Your task to perform on an android device: Open wifi settings Image 0: 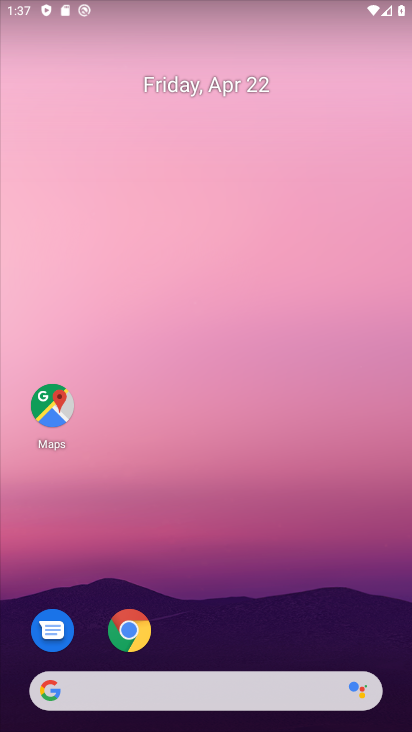
Step 0: drag from (338, 643) to (231, 215)
Your task to perform on an android device: Open wifi settings Image 1: 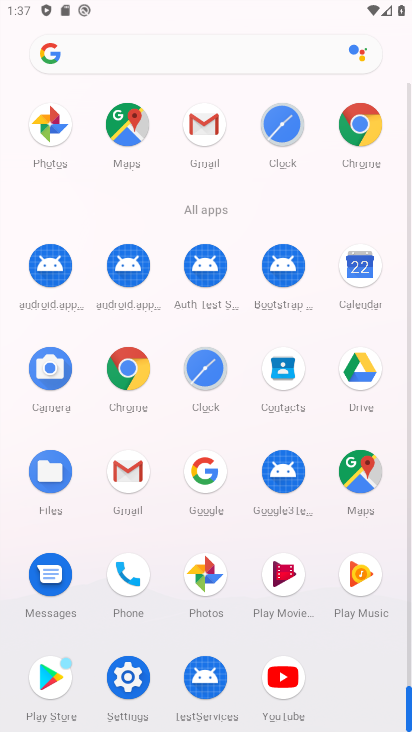
Step 1: click (305, 112)
Your task to perform on an android device: Open wifi settings Image 2: 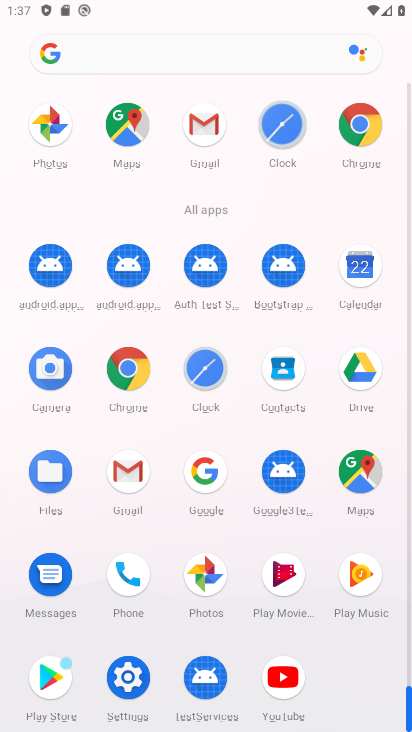
Step 2: click (230, 76)
Your task to perform on an android device: Open wifi settings Image 3: 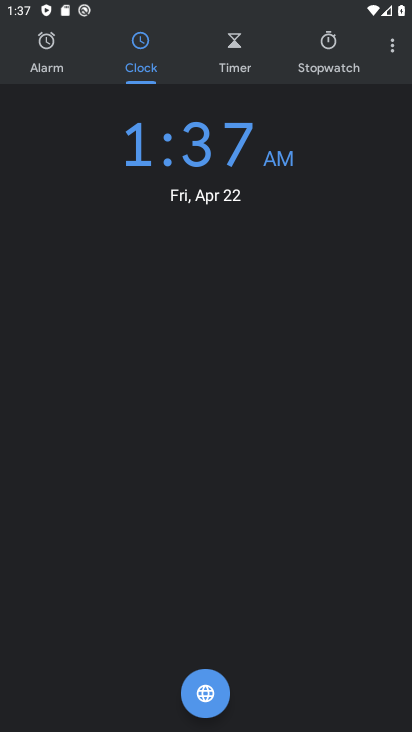
Step 3: press home button
Your task to perform on an android device: Open wifi settings Image 4: 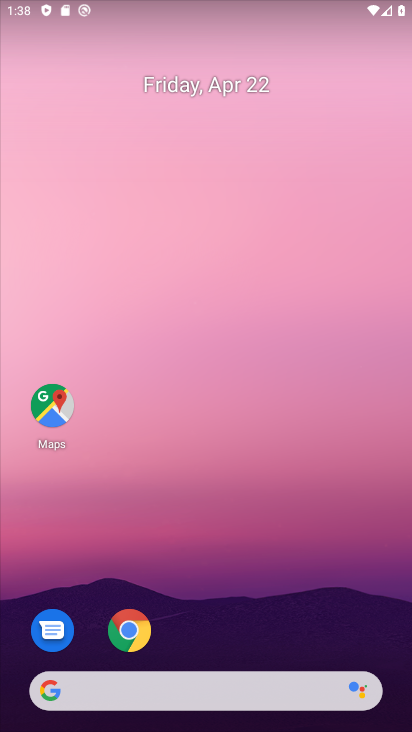
Step 4: drag from (319, 335) to (346, 97)
Your task to perform on an android device: Open wifi settings Image 5: 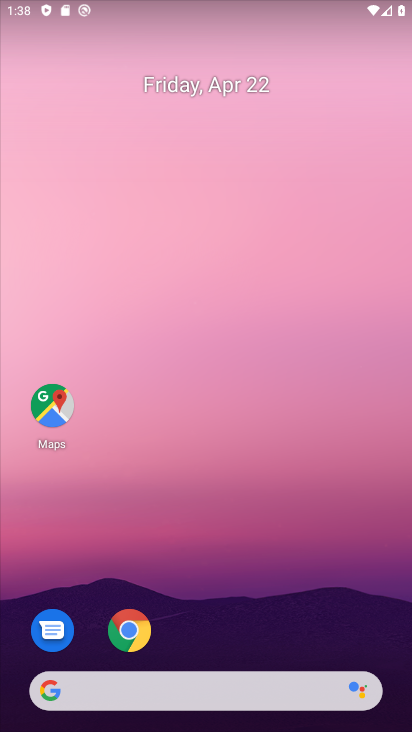
Step 5: drag from (357, 375) to (351, 177)
Your task to perform on an android device: Open wifi settings Image 6: 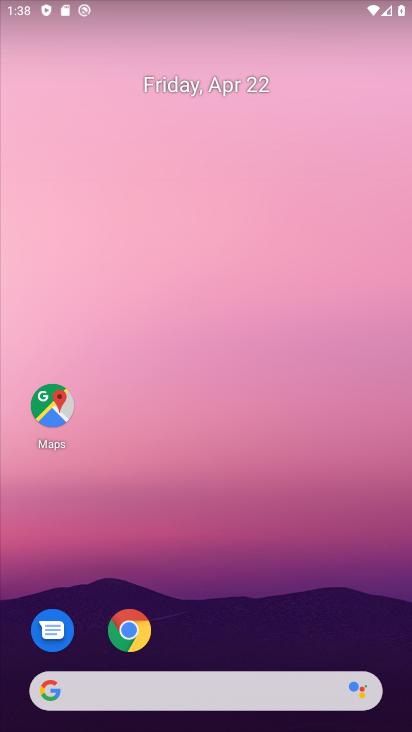
Step 6: click (393, 138)
Your task to perform on an android device: Open wifi settings Image 7: 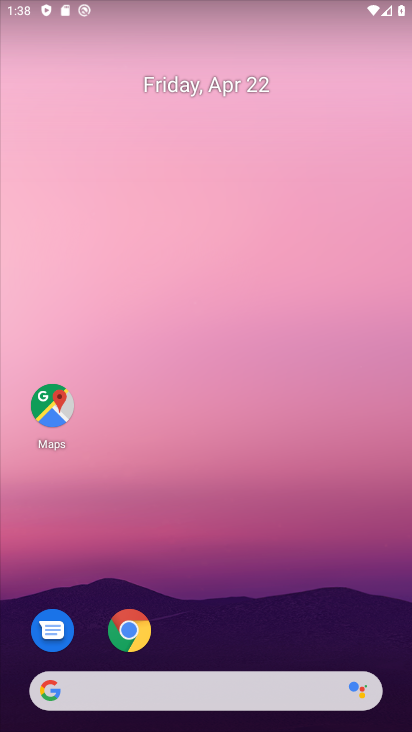
Step 7: drag from (322, 202) to (301, 74)
Your task to perform on an android device: Open wifi settings Image 8: 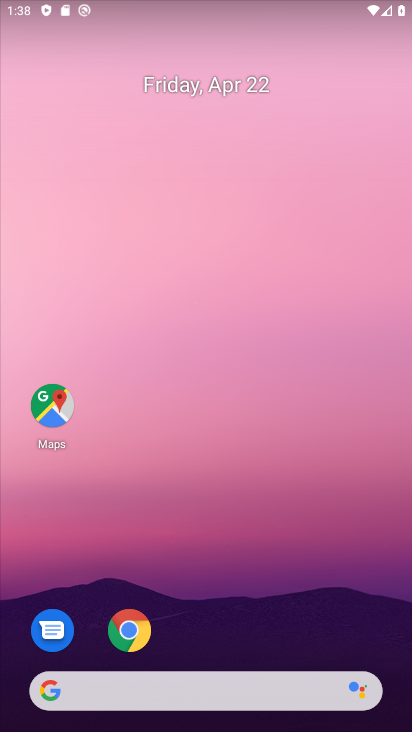
Step 8: drag from (335, 550) to (345, 123)
Your task to perform on an android device: Open wifi settings Image 9: 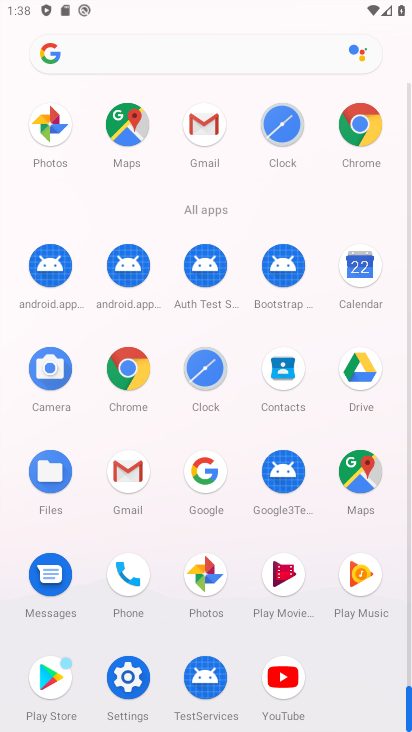
Step 9: click (114, 660)
Your task to perform on an android device: Open wifi settings Image 10: 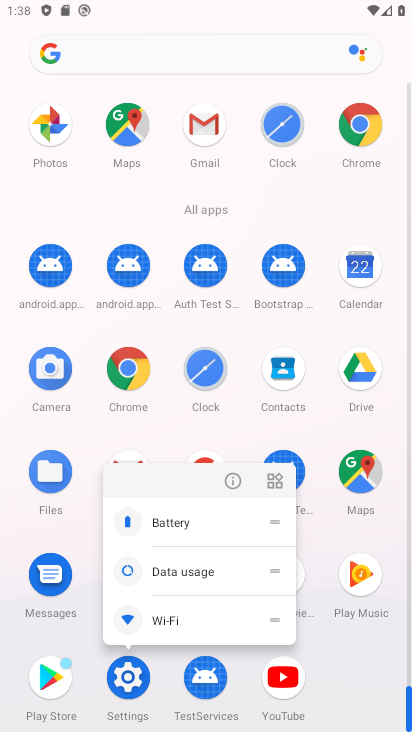
Step 10: click (138, 676)
Your task to perform on an android device: Open wifi settings Image 11: 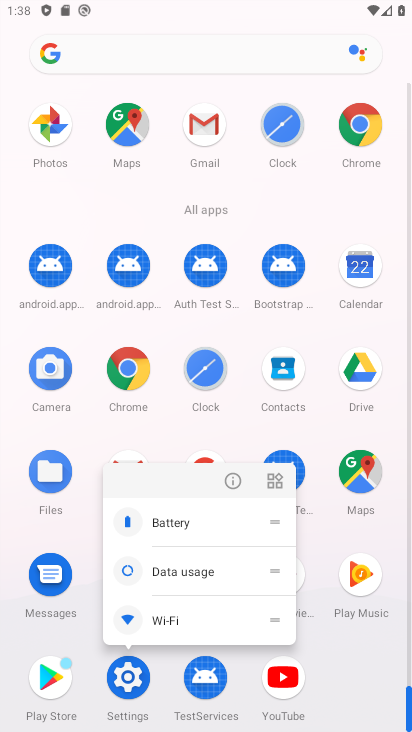
Step 11: click (138, 678)
Your task to perform on an android device: Open wifi settings Image 12: 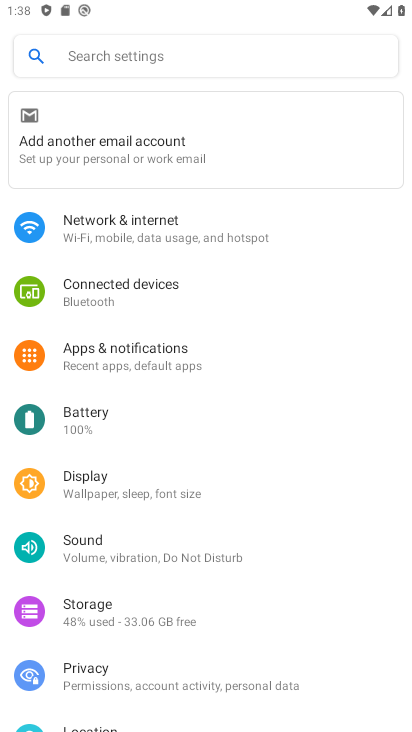
Step 12: click (116, 225)
Your task to perform on an android device: Open wifi settings Image 13: 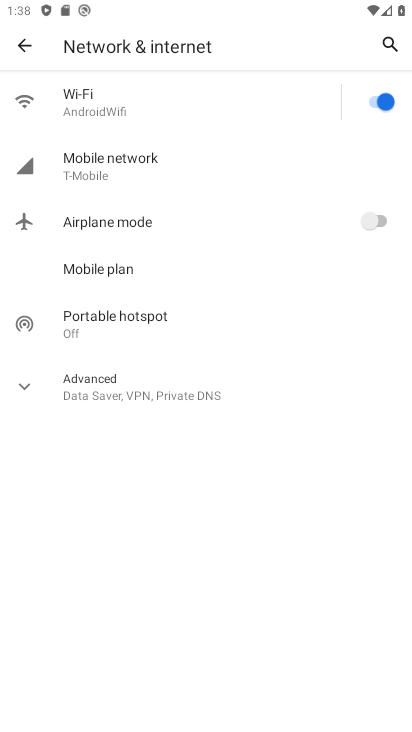
Step 13: task complete